Your task to perform on an android device: turn on the 12-hour format for clock Image 0: 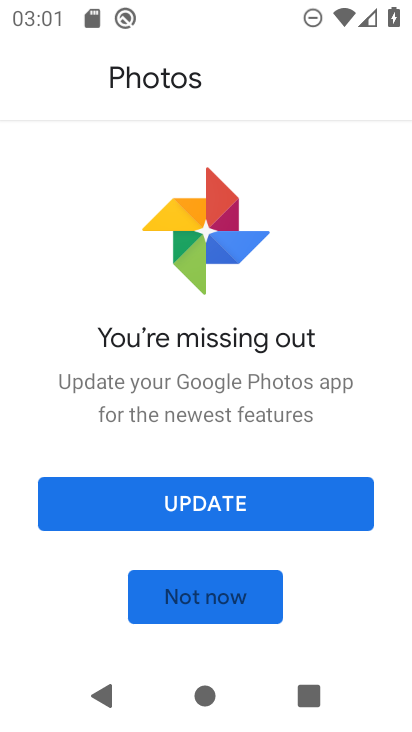
Step 0: press home button
Your task to perform on an android device: turn on the 12-hour format for clock Image 1: 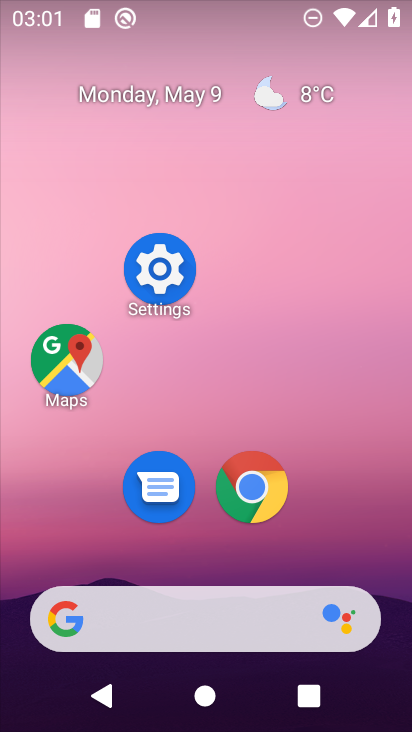
Step 1: drag from (346, 538) to (325, 38)
Your task to perform on an android device: turn on the 12-hour format for clock Image 2: 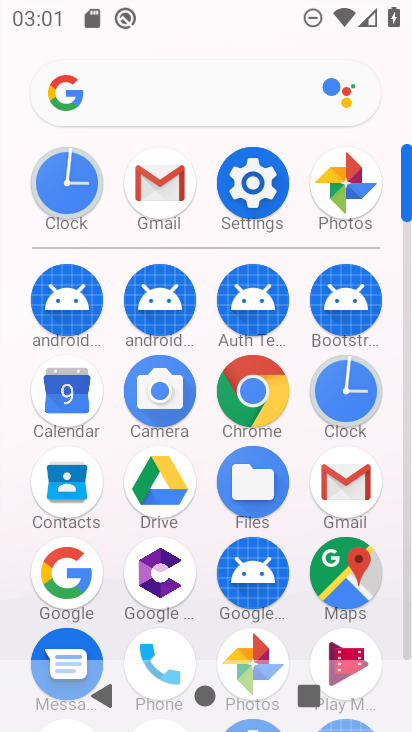
Step 2: click (331, 378)
Your task to perform on an android device: turn on the 12-hour format for clock Image 3: 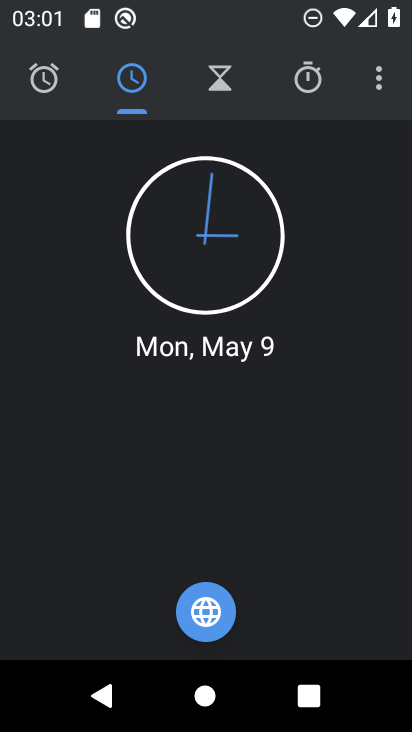
Step 3: click (368, 75)
Your task to perform on an android device: turn on the 12-hour format for clock Image 4: 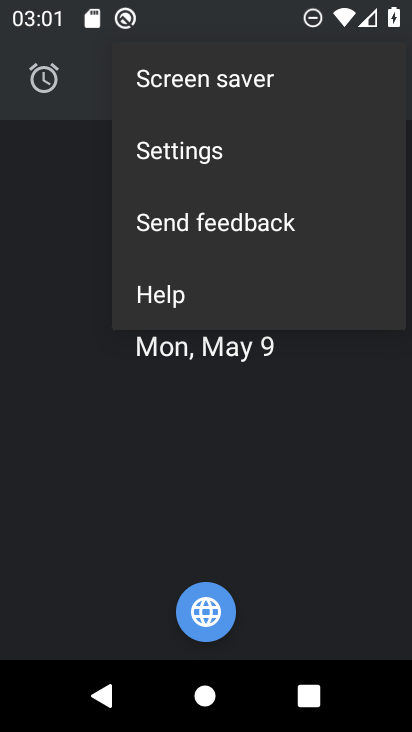
Step 4: click (175, 142)
Your task to perform on an android device: turn on the 12-hour format for clock Image 5: 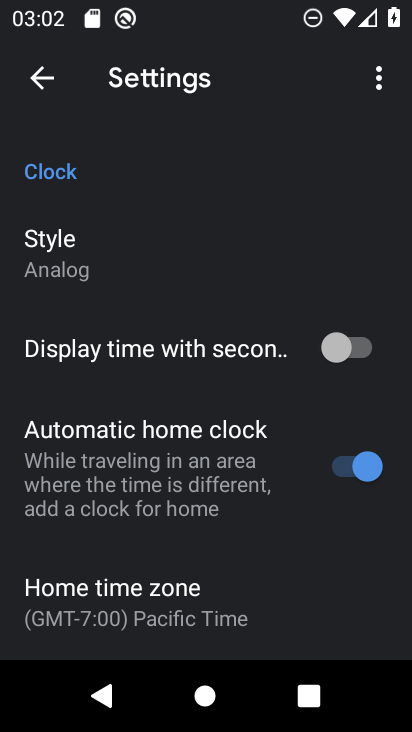
Step 5: drag from (218, 546) to (184, 101)
Your task to perform on an android device: turn on the 12-hour format for clock Image 6: 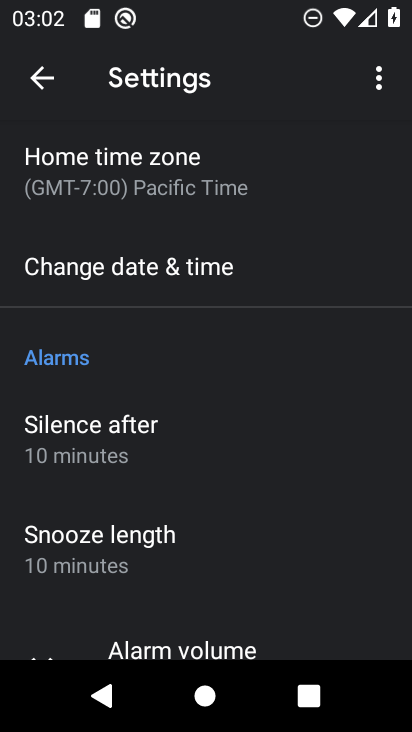
Step 6: drag from (254, 594) to (201, 726)
Your task to perform on an android device: turn on the 12-hour format for clock Image 7: 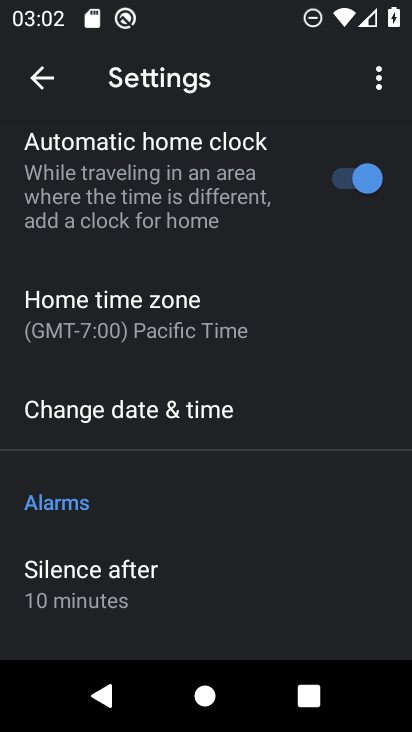
Step 7: click (181, 419)
Your task to perform on an android device: turn on the 12-hour format for clock Image 8: 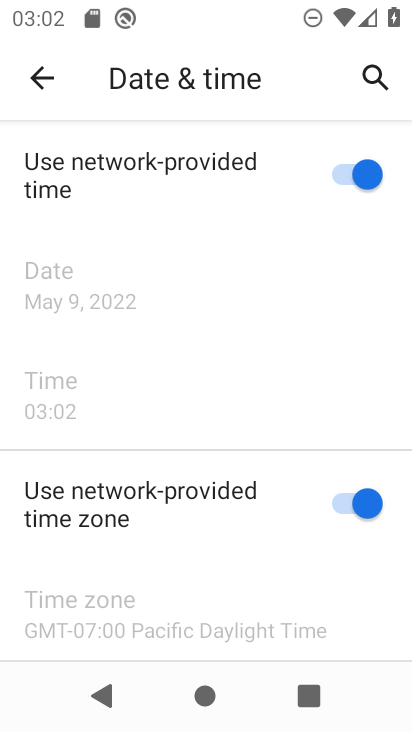
Step 8: drag from (238, 616) to (238, 125)
Your task to perform on an android device: turn on the 12-hour format for clock Image 9: 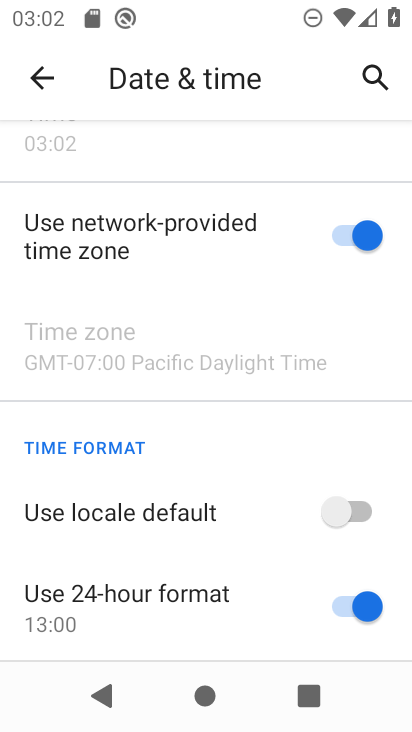
Step 9: click (373, 609)
Your task to perform on an android device: turn on the 12-hour format for clock Image 10: 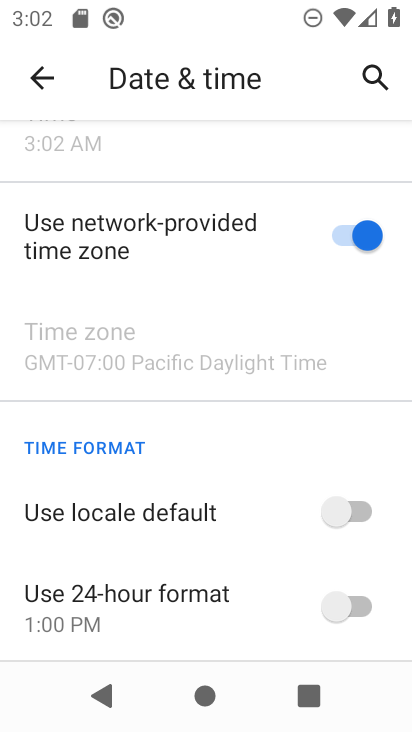
Step 10: task complete